Your task to perform on an android device: toggle show notifications on the lock screen Image 0: 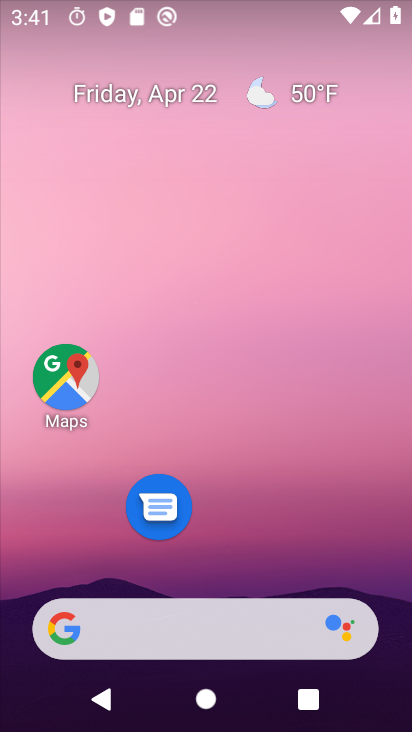
Step 0: drag from (247, 508) to (313, 90)
Your task to perform on an android device: toggle show notifications on the lock screen Image 1: 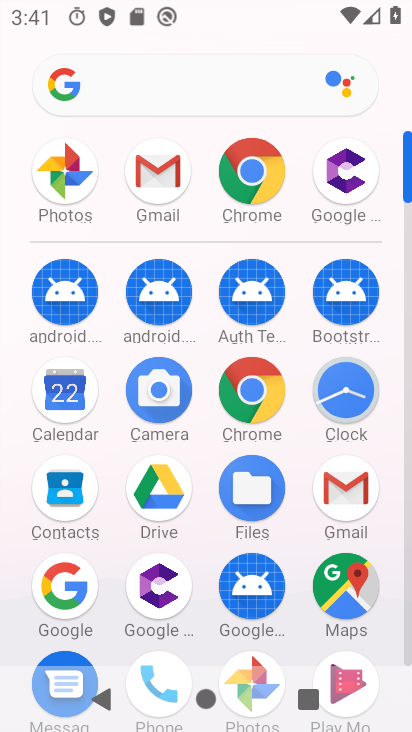
Step 1: drag from (174, 553) to (209, 171)
Your task to perform on an android device: toggle show notifications on the lock screen Image 2: 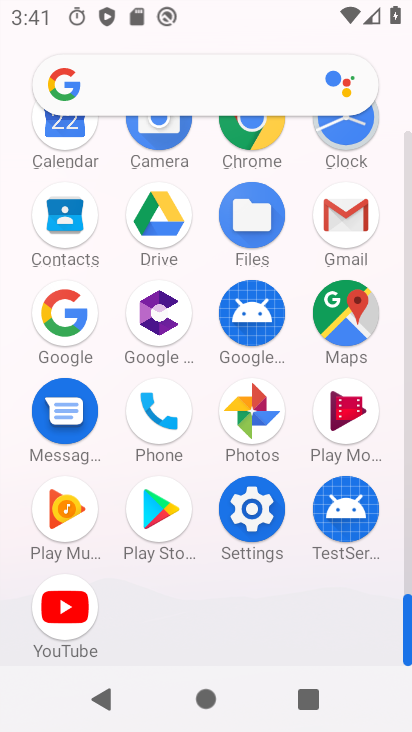
Step 2: click (251, 522)
Your task to perform on an android device: toggle show notifications on the lock screen Image 3: 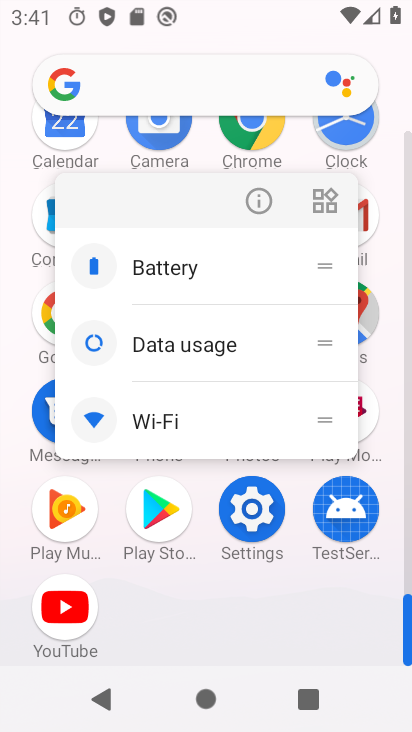
Step 3: click (259, 514)
Your task to perform on an android device: toggle show notifications on the lock screen Image 4: 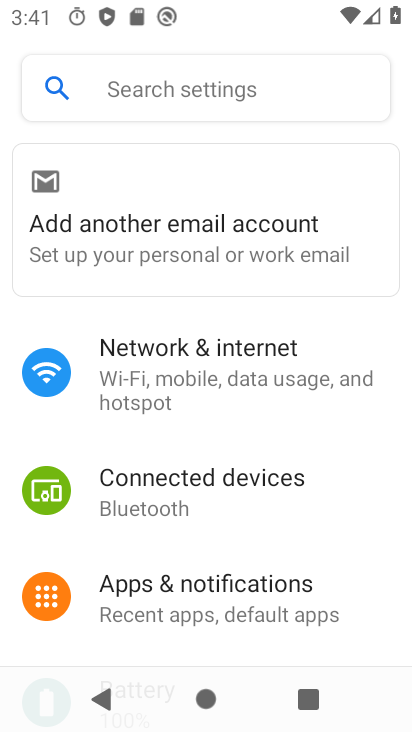
Step 4: click (229, 586)
Your task to perform on an android device: toggle show notifications on the lock screen Image 5: 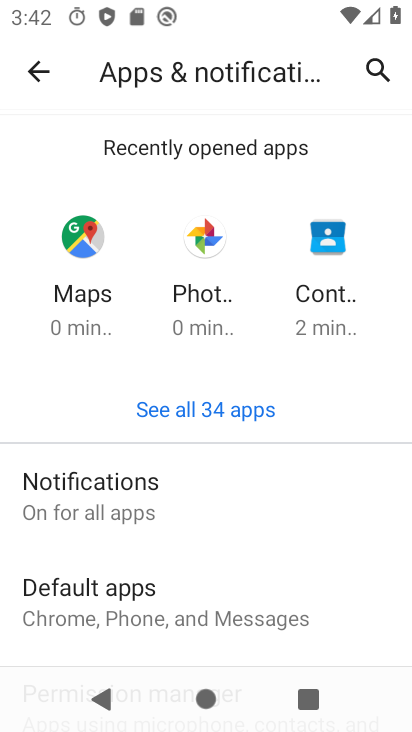
Step 5: drag from (212, 585) to (247, 137)
Your task to perform on an android device: toggle show notifications on the lock screen Image 6: 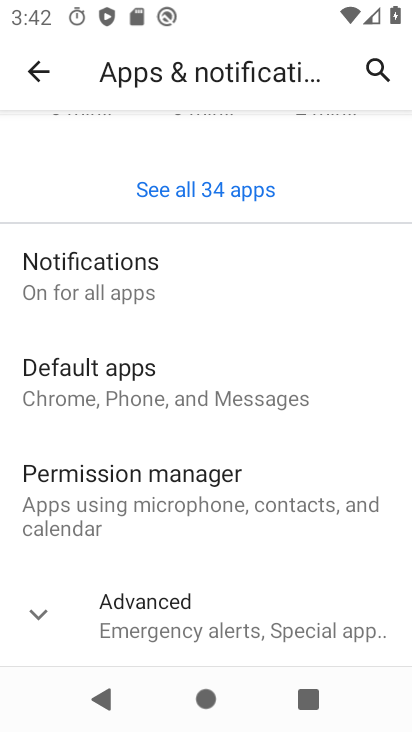
Step 6: click (171, 275)
Your task to perform on an android device: toggle show notifications on the lock screen Image 7: 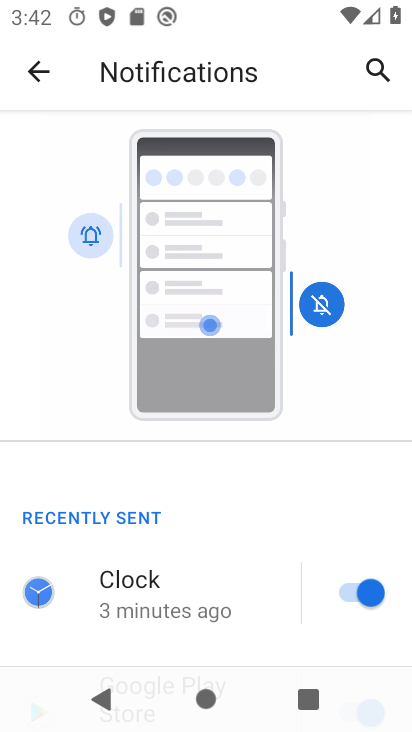
Step 7: drag from (177, 519) to (250, 89)
Your task to perform on an android device: toggle show notifications on the lock screen Image 8: 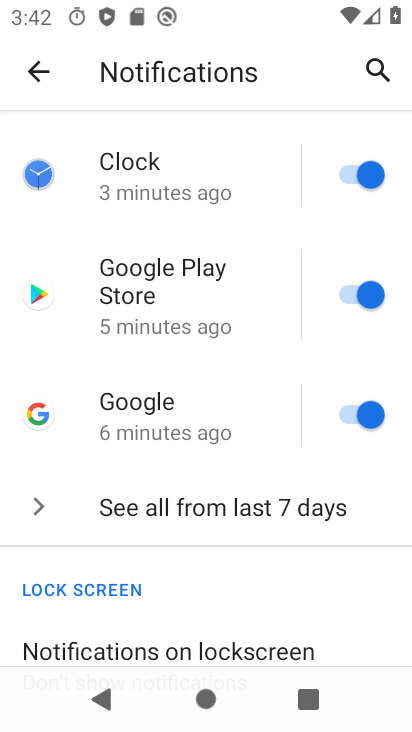
Step 8: drag from (154, 588) to (219, 199)
Your task to perform on an android device: toggle show notifications on the lock screen Image 9: 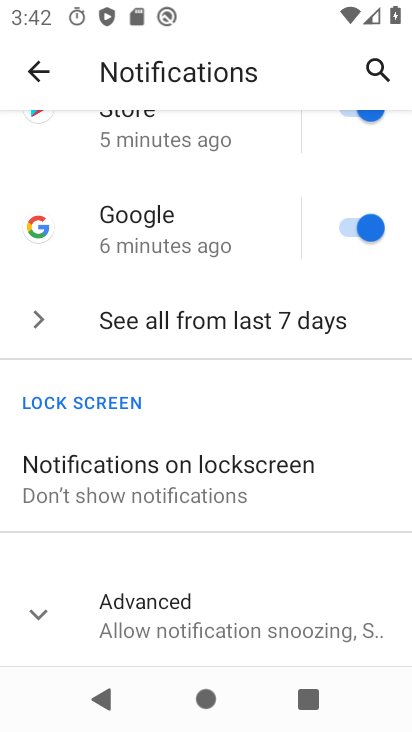
Step 9: click (180, 470)
Your task to perform on an android device: toggle show notifications on the lock screen Image 10: 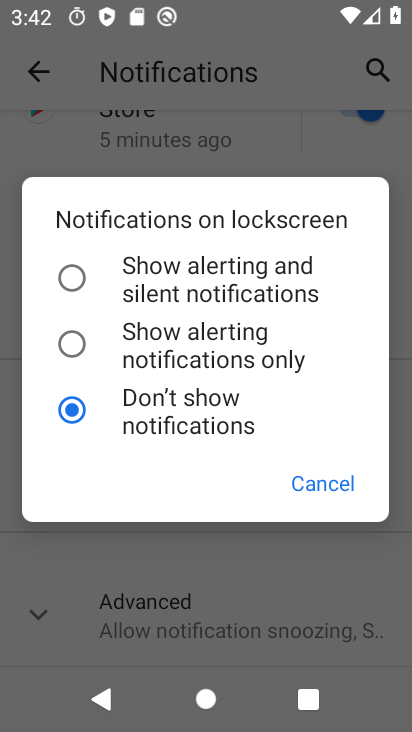
Step 10: click (69, 276)
Your task to perform on an android device: toggle show notifications on the lock screen Image 11: 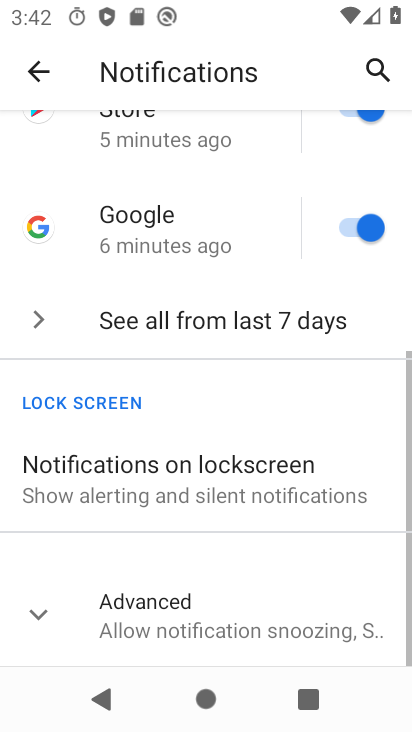
Step 11: task complete